Your task to perform on an android device: Open CNN.com Image 0: 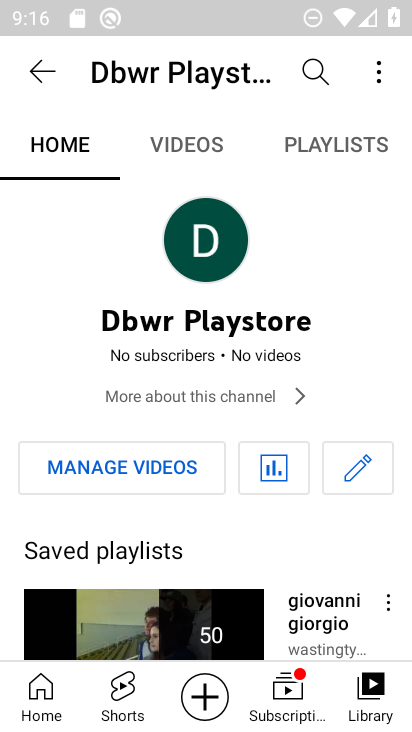
Step 0: press home button
Your task to perform on an android device: Open CNN.com Image 1: 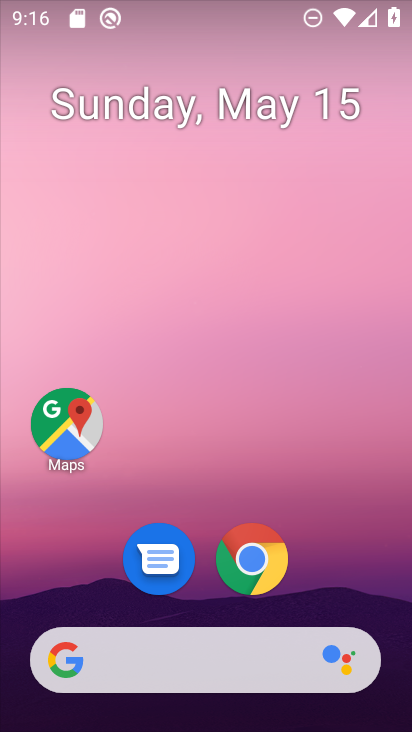
Step 1: click (269, 581)
Your task to perform on an android device: Open CNN.com Image 2: 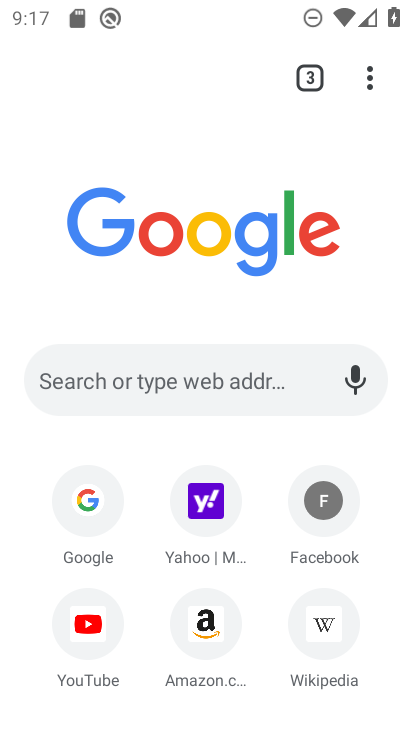
Step 2: click (217, 388)
Your task to perform on an android device: Open CNN.com Image 3: 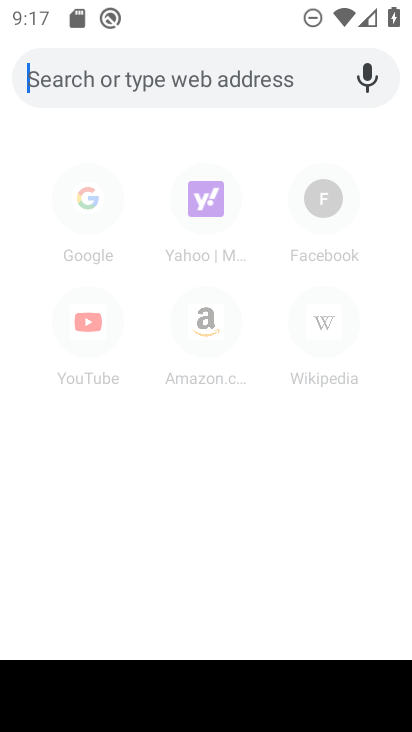
Step 3: type "cnn.com"
Your task to perform on an android device: Open CNN.com Image 4: 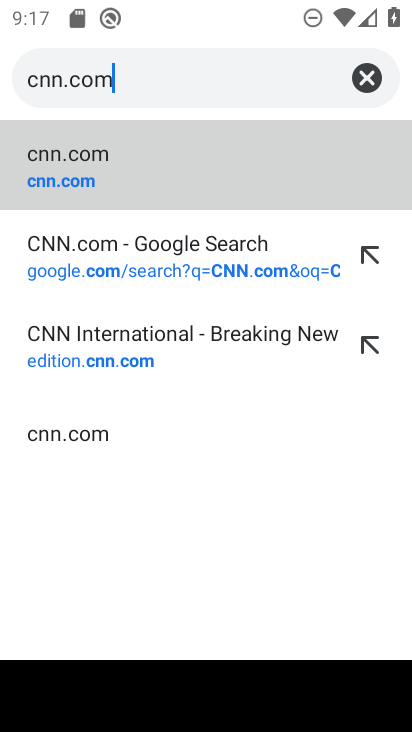
Step 4: click (197, 268)
Your task to perform on an android device: Open CNN.com Image 5: 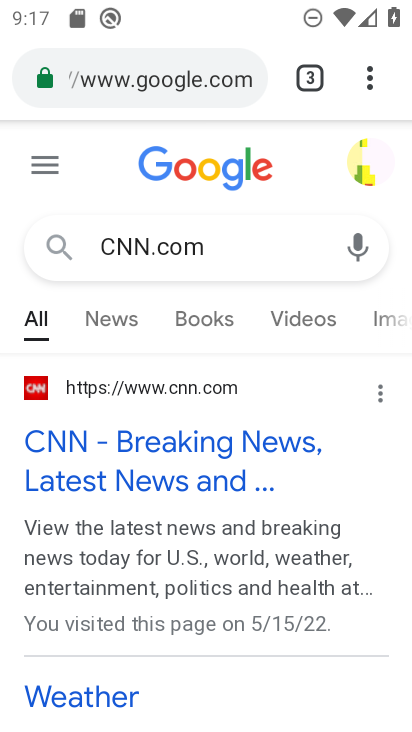
Step 5: click (118, 452)
Your task to perform on an android device: Open CNN.com Image 6: 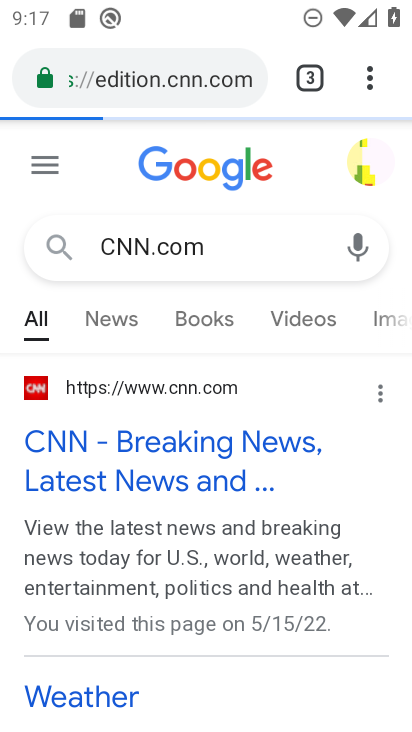
Step 6: task complete